Your task to perform on an android device: Open sound settings Image 0: 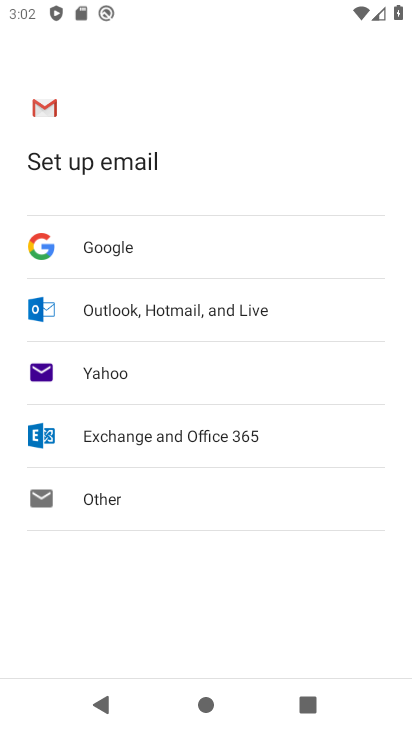
Step 0: press back button
Your task to perform on an android device: Open sound settings Image 1: 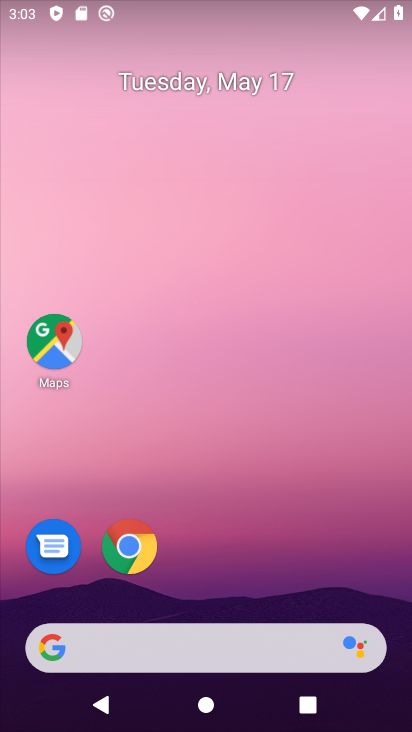
Step 1: drag from (265, 564) to (212, 140)
Your task to perform on an android device: Open sound settings Image 2: 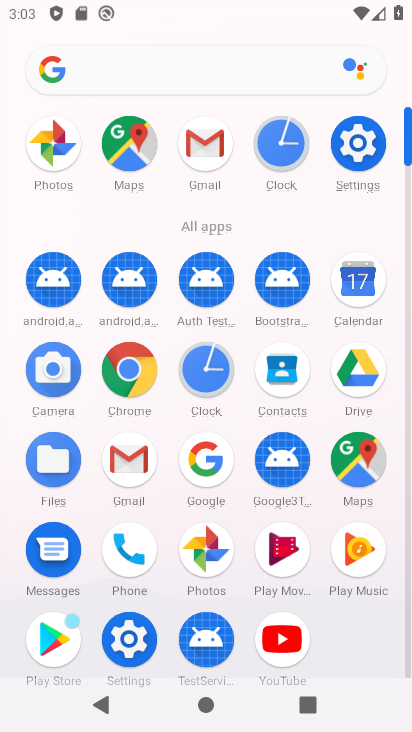
Step 2: click (356, 144)
Your task to perform on an android device: Open sound settings Image 3: 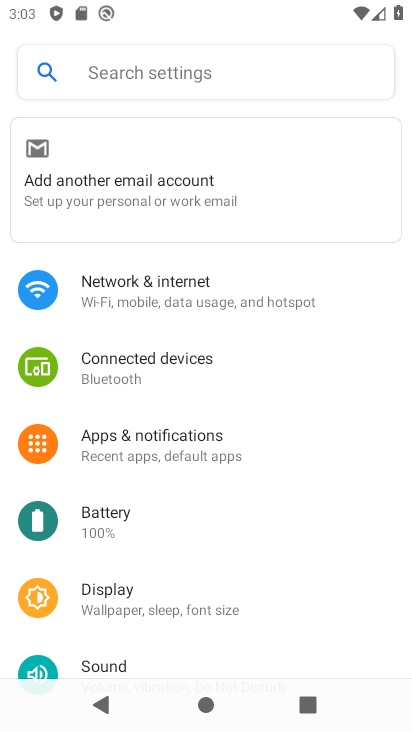
Step 3: drag from (143, 472) to (202, 357)
Your task to perform on an android device: Open sound settings Image 4: 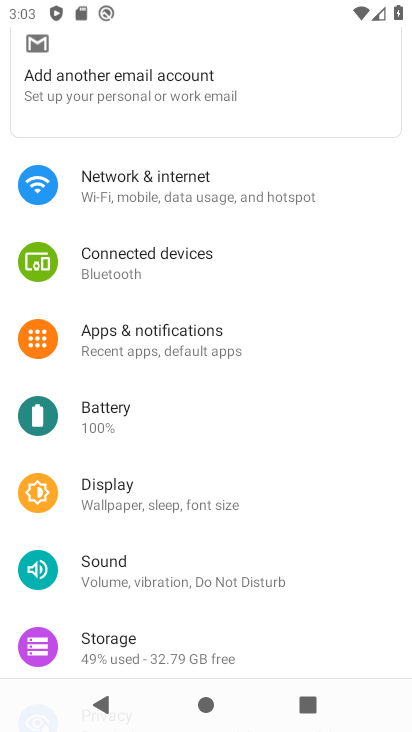
Step 4: click (153, 573)
Your task to perform on an android device: Open sound settings Image 5: 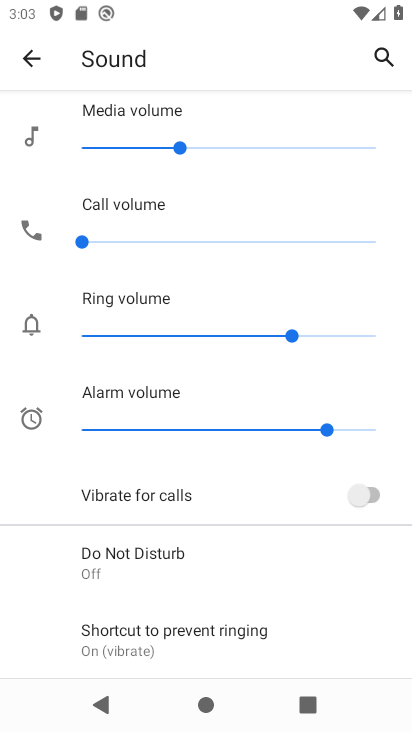
Step 5: task complete